Your task to perform on an android device: create a new album in the google photos Image 0: 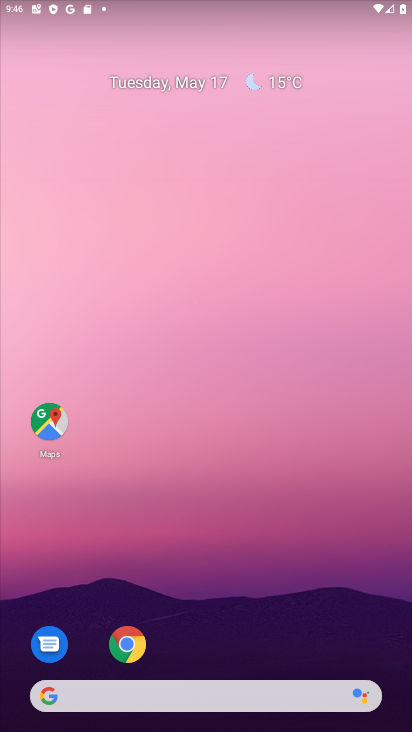
Step 0: drag from (200, 651) to (255, 40)
Your task to perform on an android device: create a new album in the google photos Image 1: 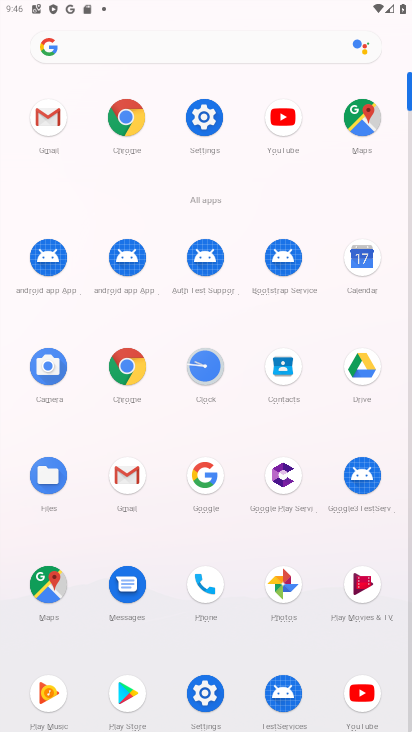
Step 1: click (283, 597)
Your task to perform on an android device: create a new album in the google photos Image 2: 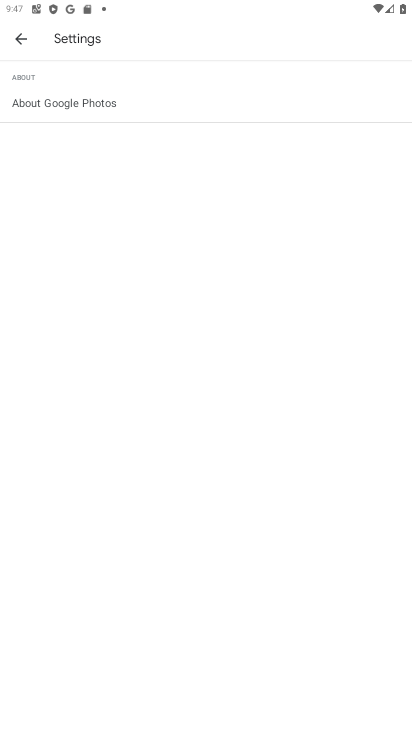
Step 2: click (24, 36)
Your task to perform on an android device: create a new album in the google photos Image 3: 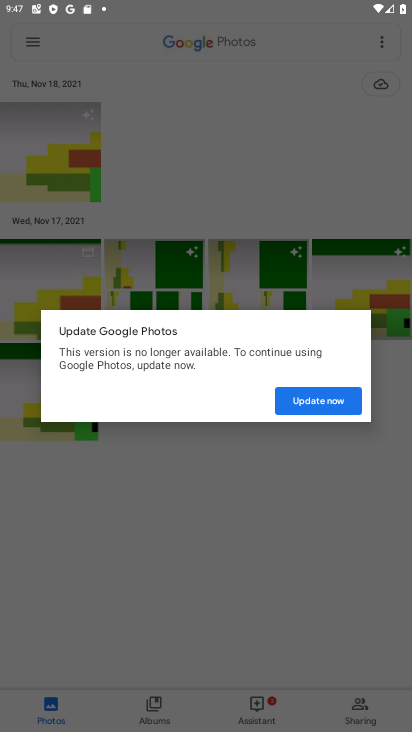
Step 3: click (320, 410)
Your task to perform on an android device: create a new album in the google photos Image 4: 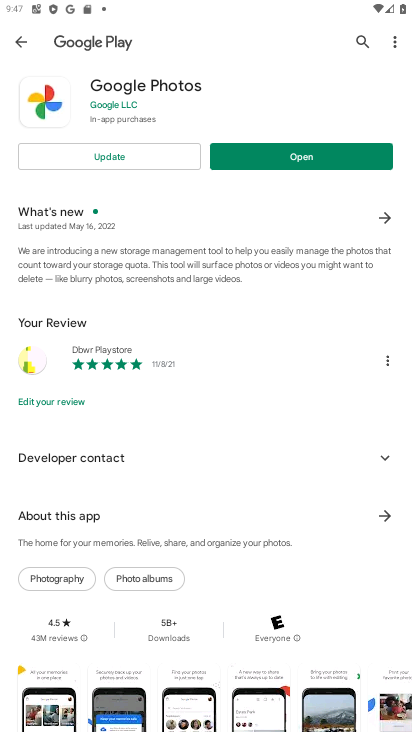
Step 4: click (155, 153)
Your task to perform on an android device: create a new album in the google photos Image 5: 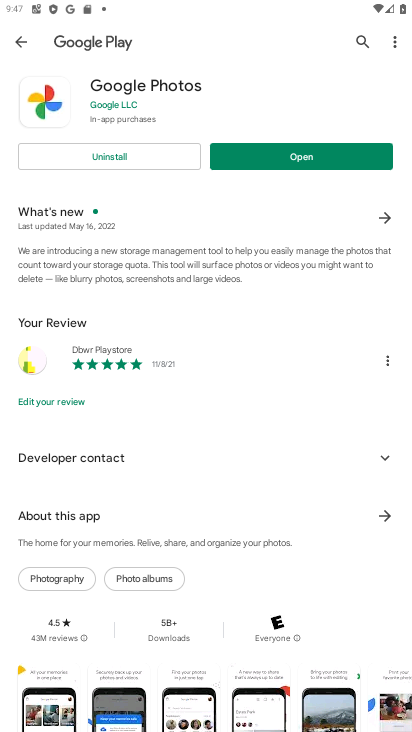
Step 5: click (317, 153)
Your task to perform on an android device: create a new album in the google photos Image 6: 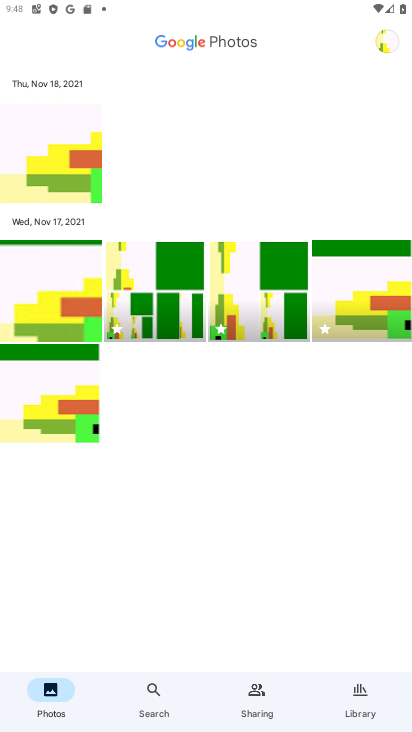
Step 6: click (186, 278)
Your task to perform on an android device: create a new album in the google photos Image 7: 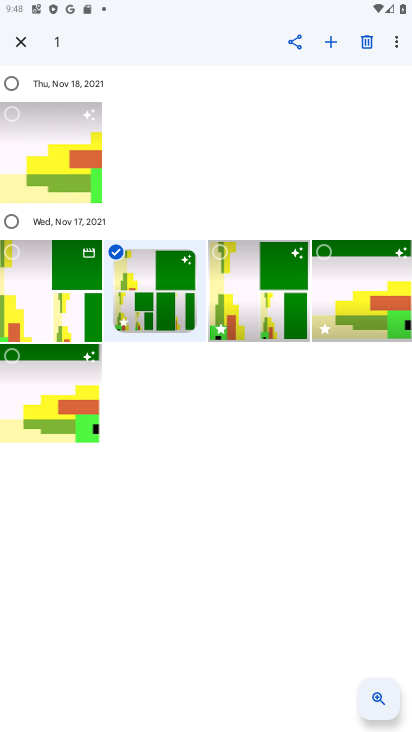
Step 7: click (263, 277)
Your task to perform on an android device: create a new album in the google photos Image 8: 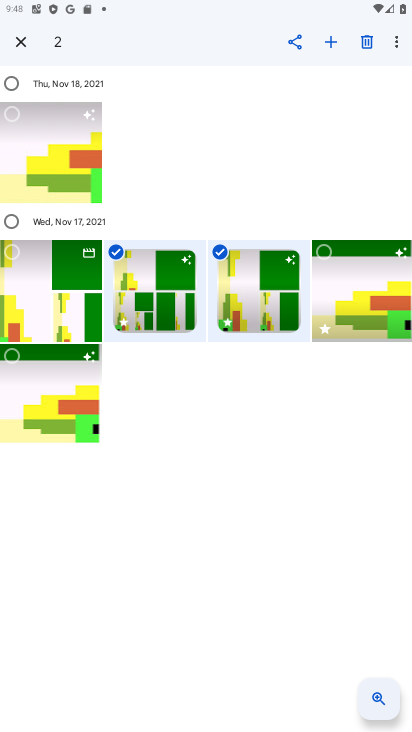
Step 8: click (328, 41)
Your task to perform on an android device: create a new album in the google photos Image 9: 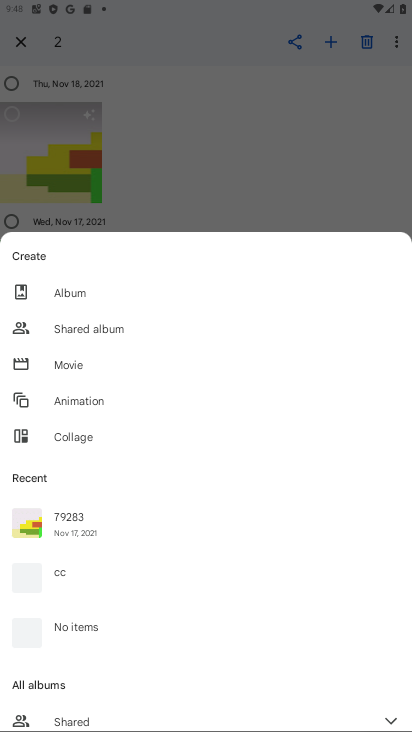
Step 9: click (69, 291)
Your task to perform on an android device: create a new album in the google photos Image 10: 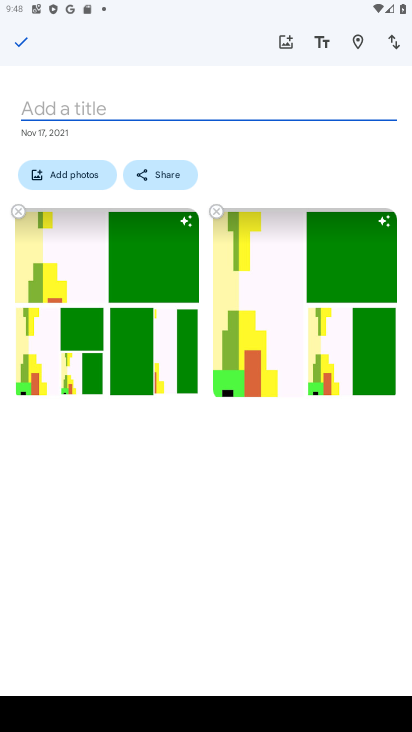
Step 10: type "bbbbbbbbb"
Your task to perform on an android device: create a new album in the google photos Image 11: 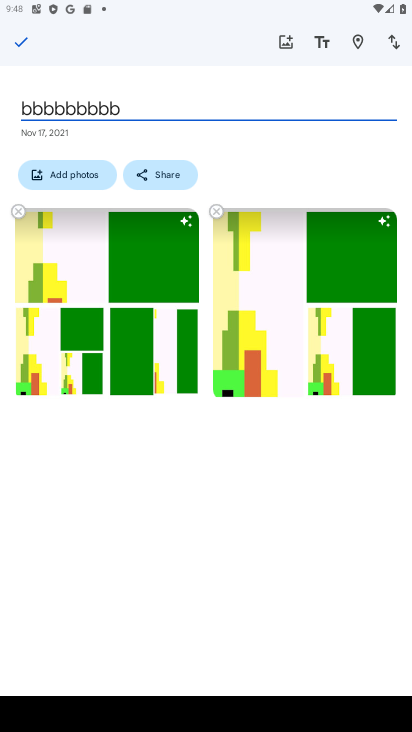
Step 11: click (19, 41)
Your task to perform on an android device: create a new album in the google photos Image 12: 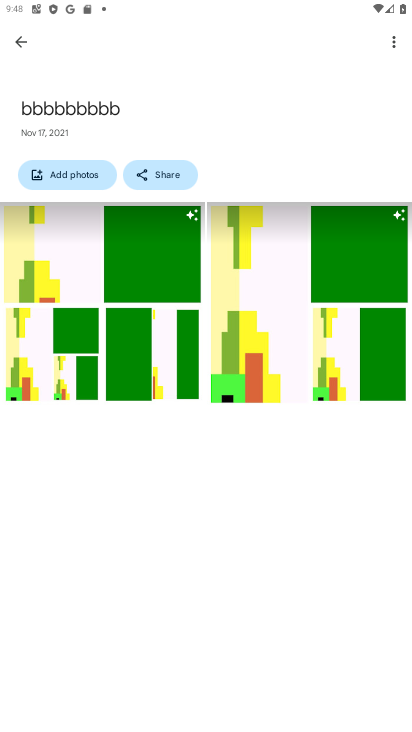
Step 12: task complete